Your task to perform on an android device: Turn on the flashlight Image 0: 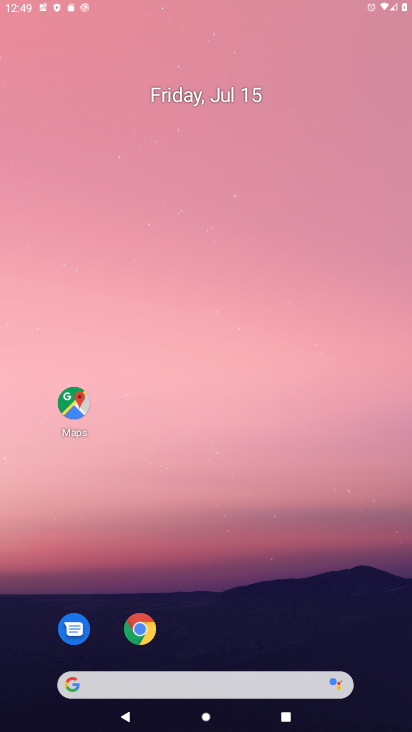
Step 0: press home button
Your task to perform on an android device: Turn on the flashlight Image 1: 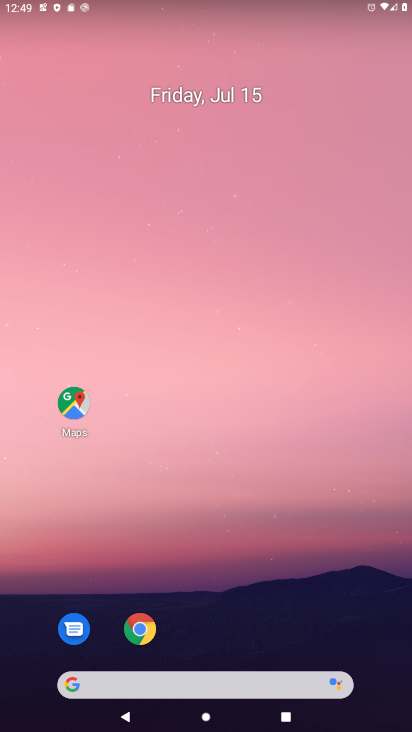
Step 1: task complete